Your task to perform on an android device: Open location settings Image 0: 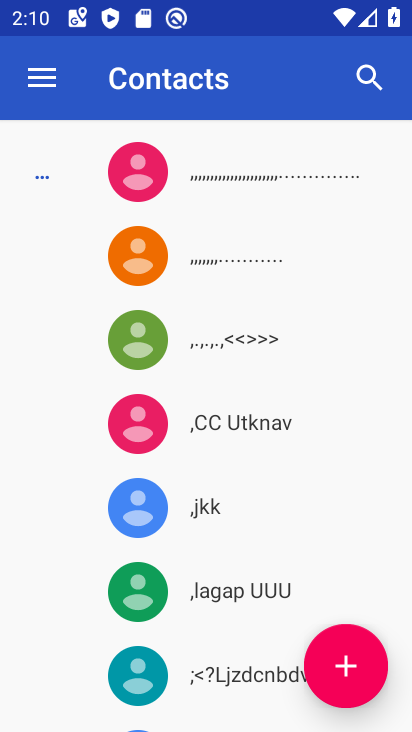
Step 0: press home button
Your task to perform on an android device: Open location settings Image 1: 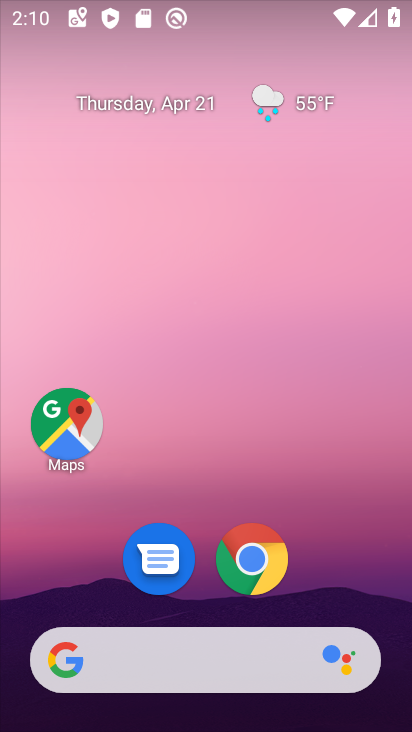
Step 1: drag from (204, 594) to (173, 23)
Your task to perform on an android device: Open location settings Image 2: 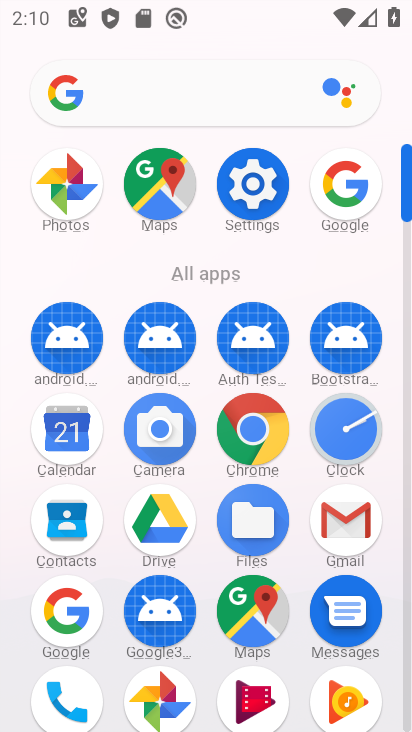
Step 2: click (251, 180)
Your task to perform on an android device: Open location settings Image 3: 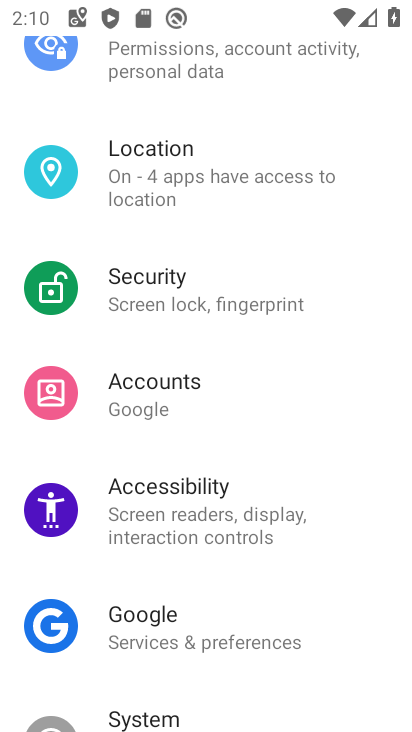
Step 3: click (146, 164)
Your task to perform on an android device: Open location settings Image 4: 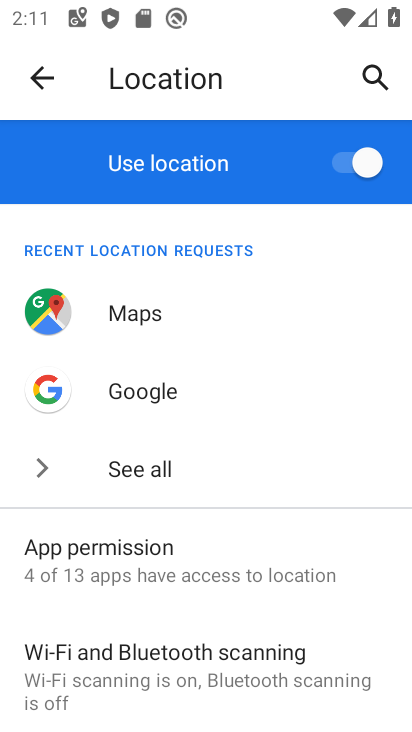
Step 4: task complete